Your task to perform on an android device: turn on airplane mode Image 0: 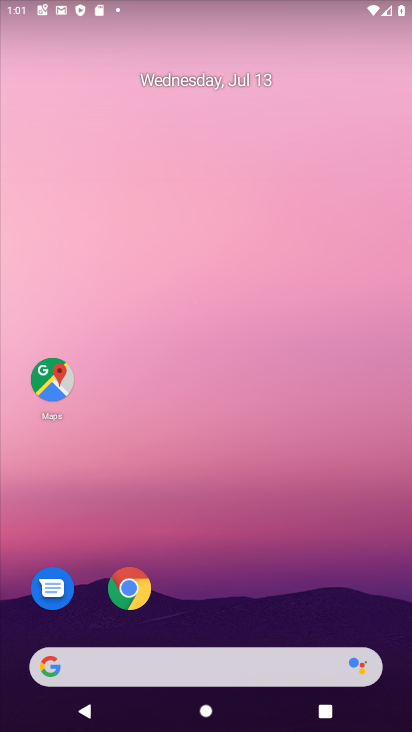
Step 0: press home button
Your task to perform on an android device: turn on airplane mode Image 1: 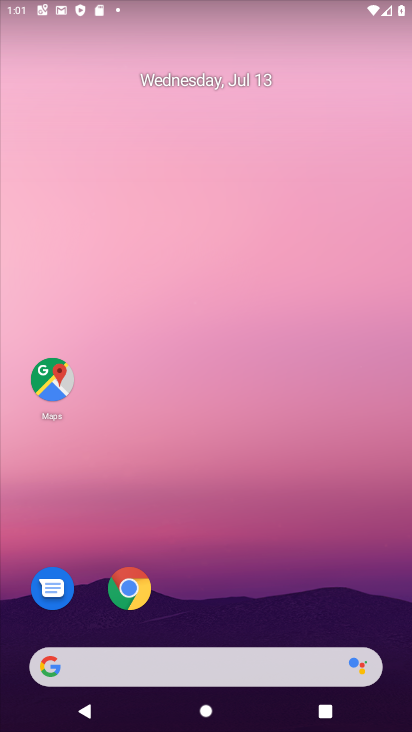
Step 1: drag from (240, 518) to (198, 73)
Your task to perform on an android device: turn on airplane mode Image 2: 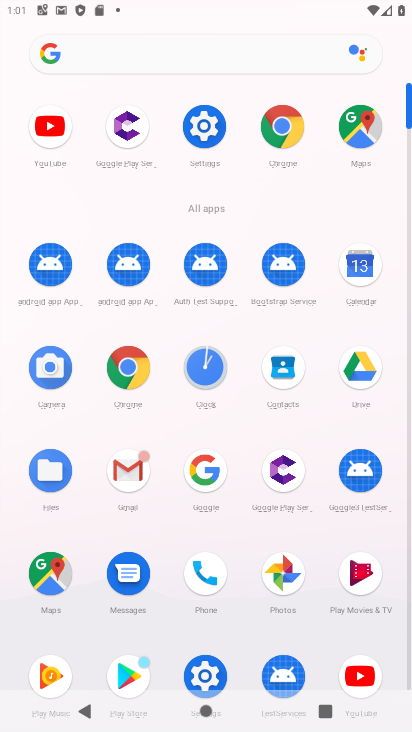
Step 2: drag from (192, 2) to (236, 490)
Your task to perform on an android device: turn on airplane mode Image 3: 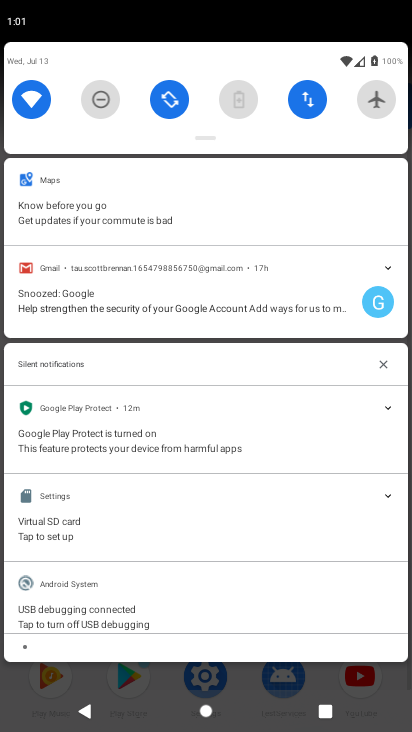
Step 3: click (373, 96)
Your task to perform on an android device: turn on airplane mode Image 4: 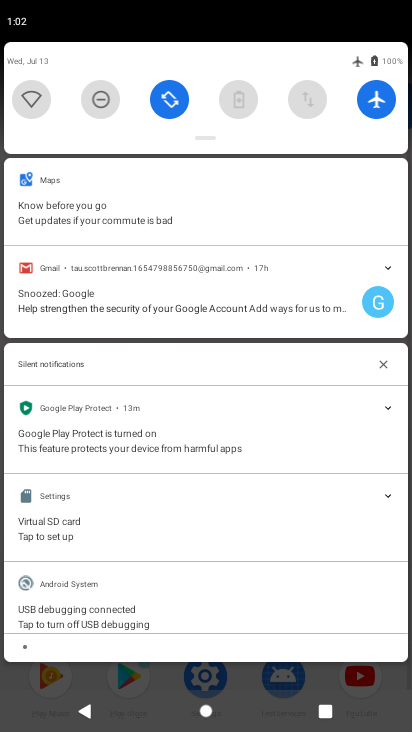
Step 4: task complete